Your task to perform on an android device: check out phone information Image 0: 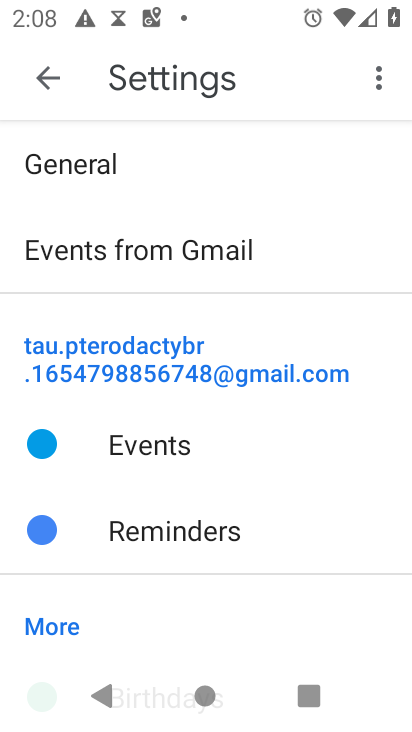
Step 0: press back button
Your task to perform on an android device: check out phone information Image 1: 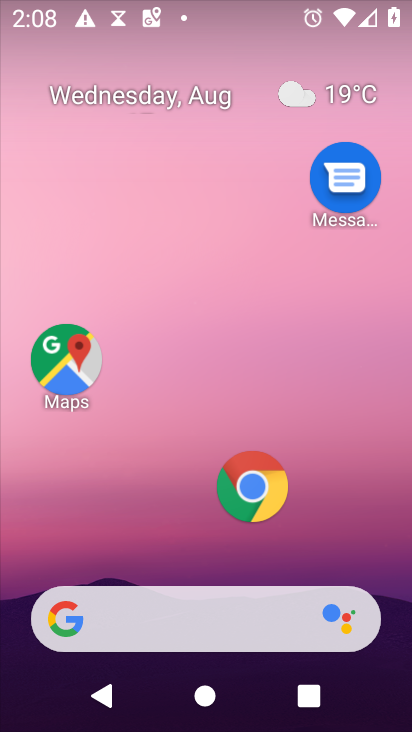
Step 1: drag from (151, 536) to (252, 6)
Your task to perform on an android device: check out phone information Image 2: 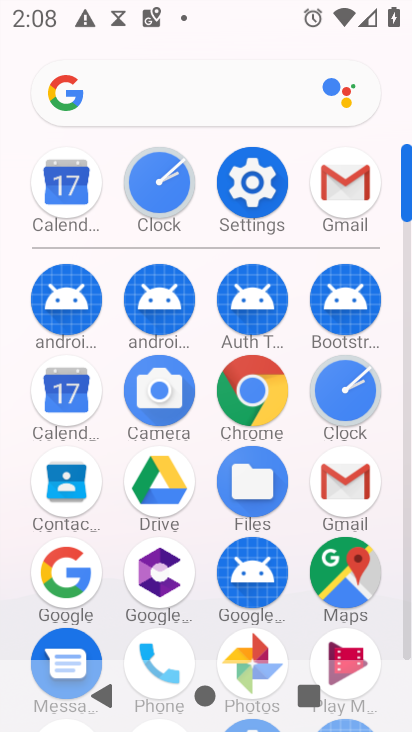
Step 2: click (251, 182)
Your task to perform on an android device: check out phone information Image 3: 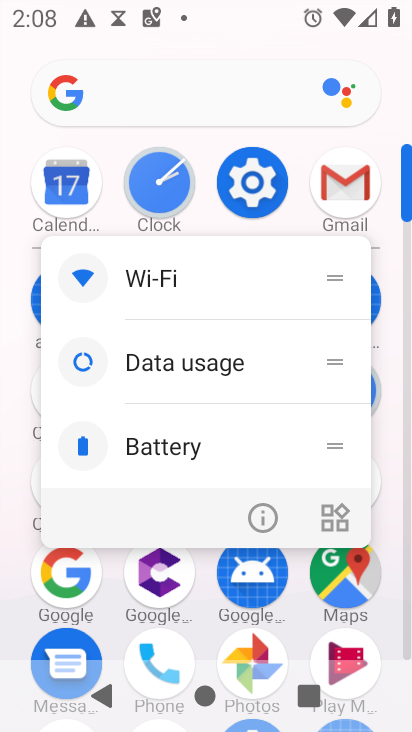
Step 3: click (266, 176)
Your task to perform on an android device: check out phone information Image 4: 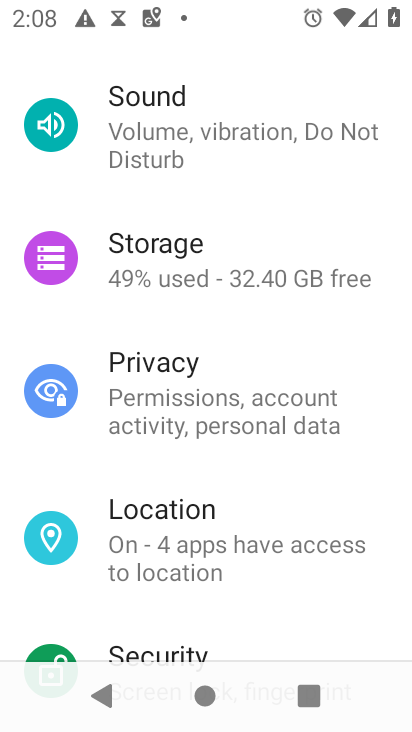
Step 4: drag from (167, 608) to (267, 75)
Your task to perform on an android device: check out phone information Image 5: 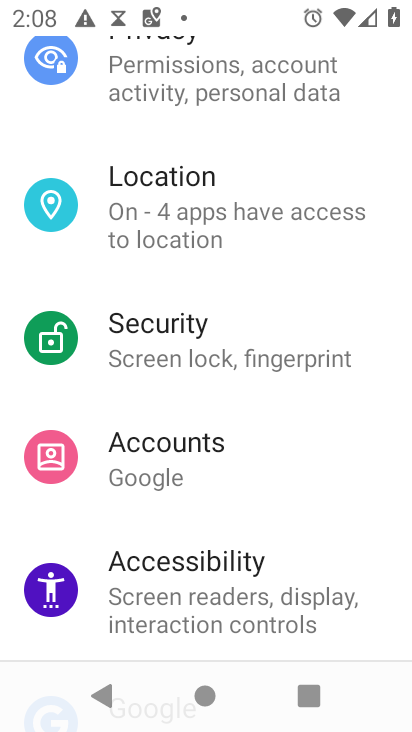
Step 5: drag from (198, 620) to (271, 77)
Your task to perform on an android device: check out phone information Image 6: 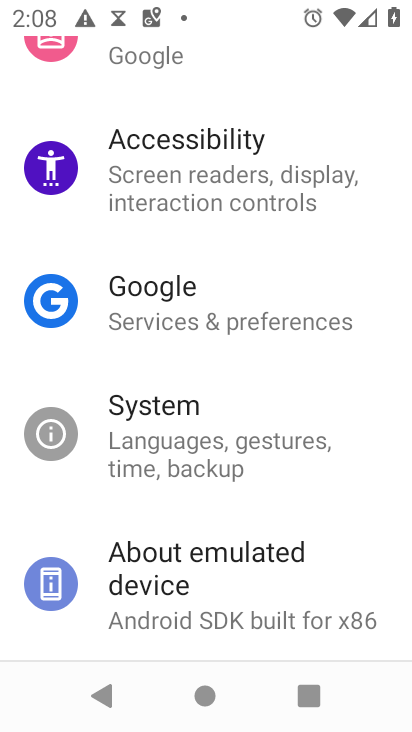
Step 6: drag from (180, 600) to (242, 159)
Your task to perform on an android device: check out phone information Image 7: 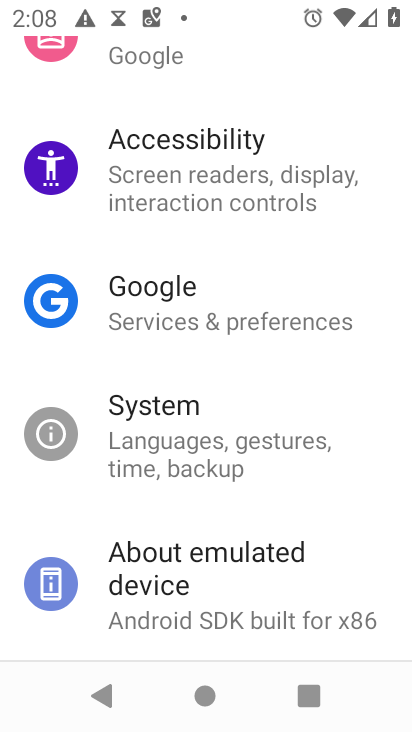
Step 7: click (173, 572)
Your task to perform on an android device: check out phone information Image 8: 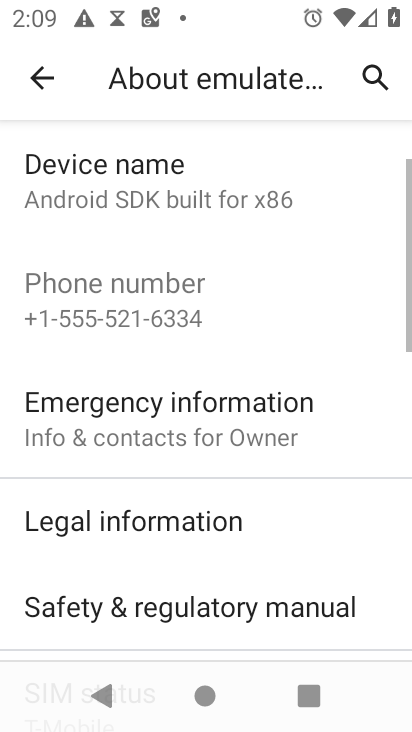
Step 8: task complete